Your task to perform on an android device: turn vacation reply on in the gmail app Image 0: 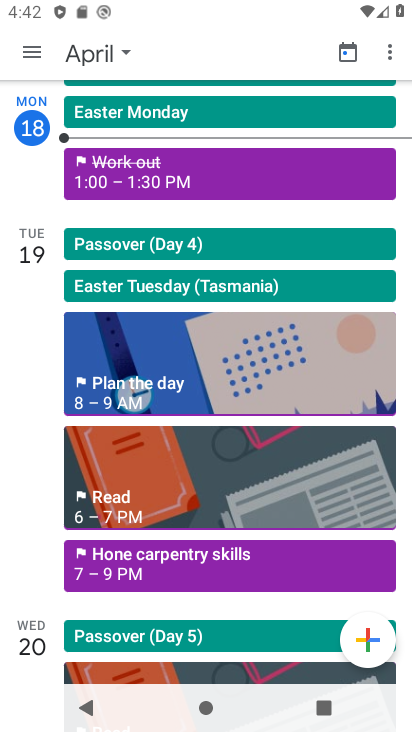
Step 0: press home button
Your task to perform on an android device: turn vacation reply on in the gmail app Image 1: 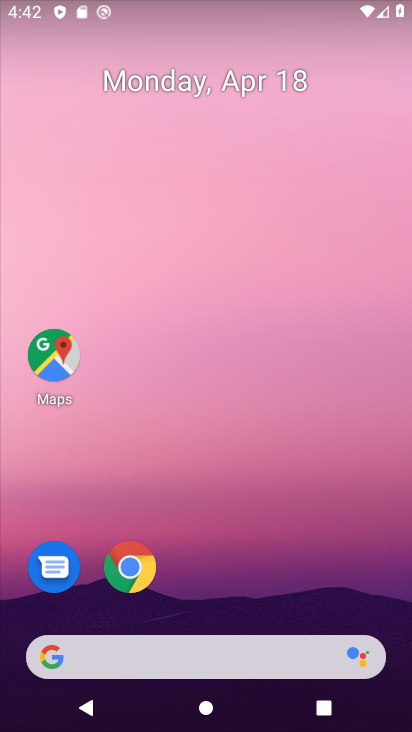
Step 1: drag from (199, 684) to (290, 172)
Your task to perform on an android device: turn vacation reply on in the gmail app Image 2: 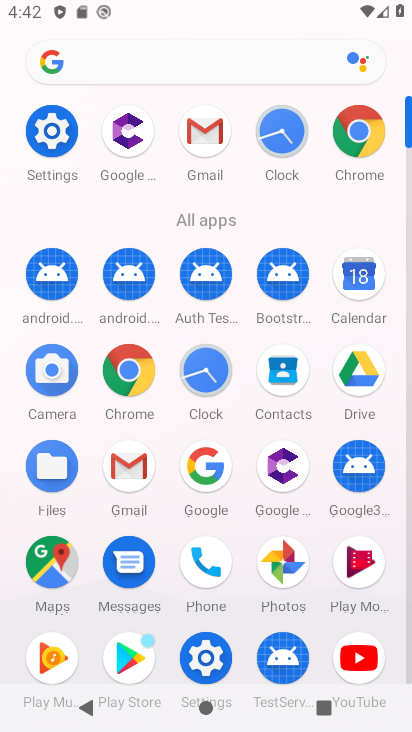
Step 2: click (205, 139)
Your task to perform on an android device: turn vacation reply on in the gmail app Image 3: 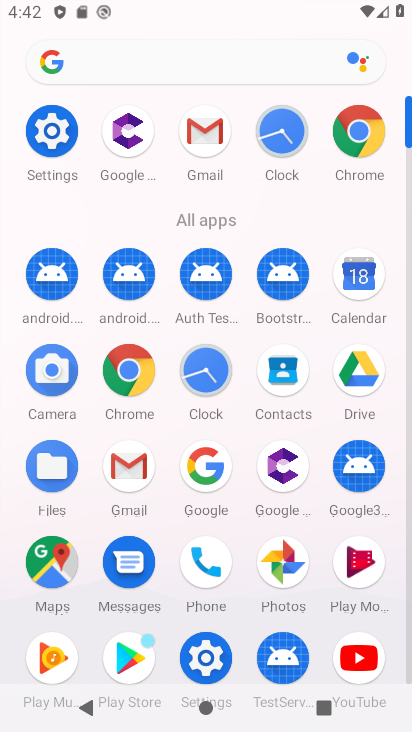
Step 3: click (205, 139)
Your task to perform on an android device: turn vacation reply on in the gmail app Image 4: 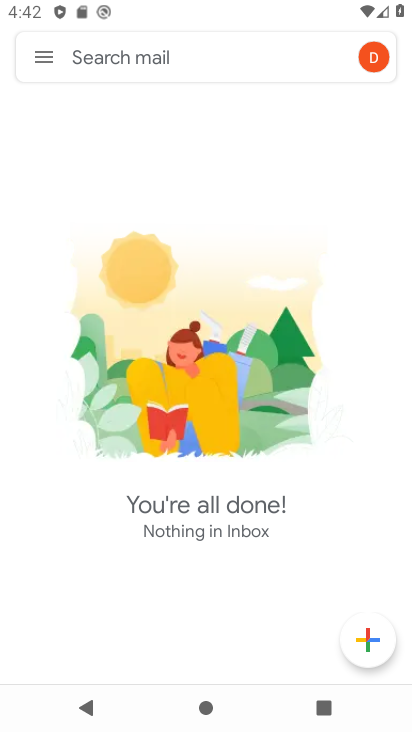
Step 4: click (39, 63)
Your task to perform on an android device: turn vacation reply on in the gmail app Image 5: 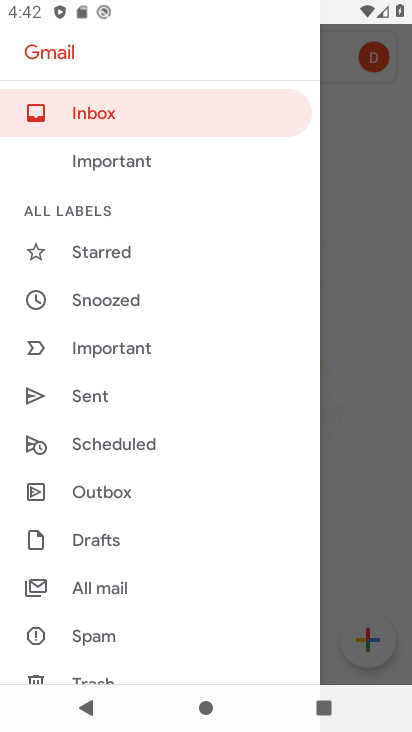
Step 5: drag from (78, 623) to (170, 215)
Your task to perform on an android device: turn vacation reply on in the gmail app Image 6: 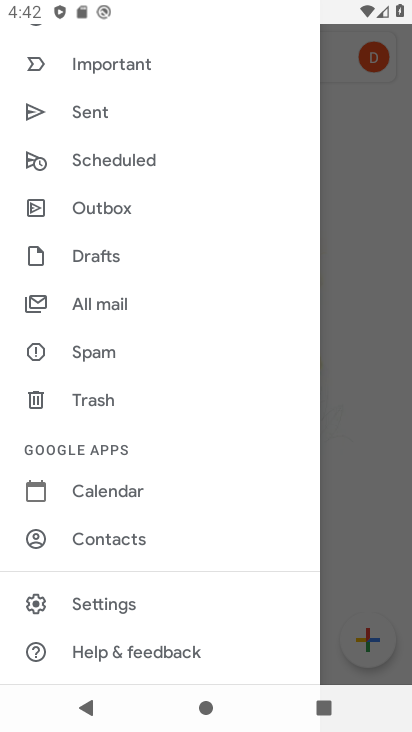
Step 6: click (109, 590)
Your task to perform on an android device: turn vacation reply on in the gmail app Image 7: 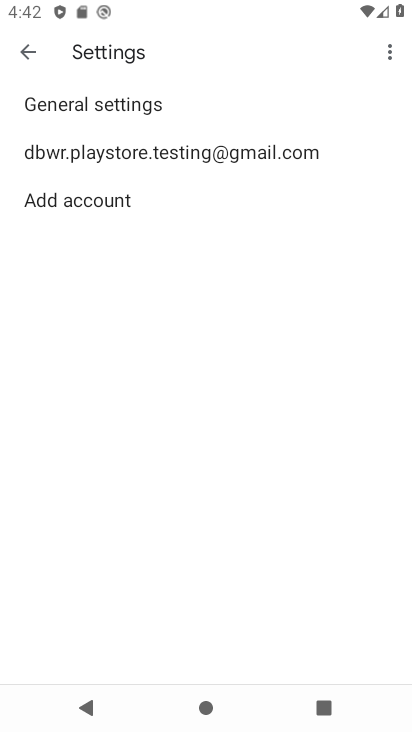
Step 7: click (124, 158)
Your task to perform on an android device: turn vacation reply on in the gmail app Image 8: 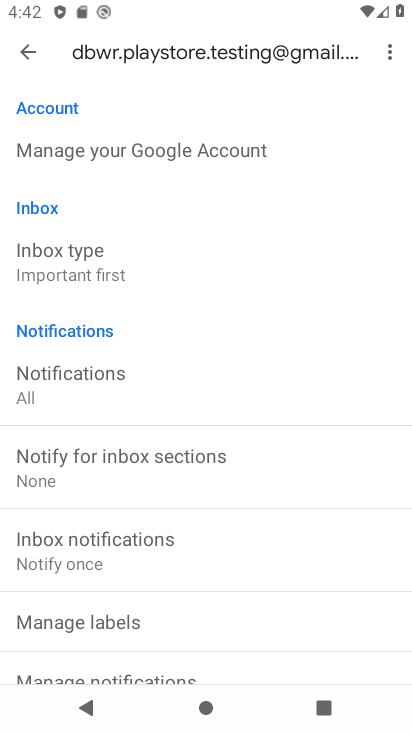
Step 8: drag from (224, 445) to (276, 161)
Your task to perform on an android device: turn vacation reply on in the gmail app Image 9: 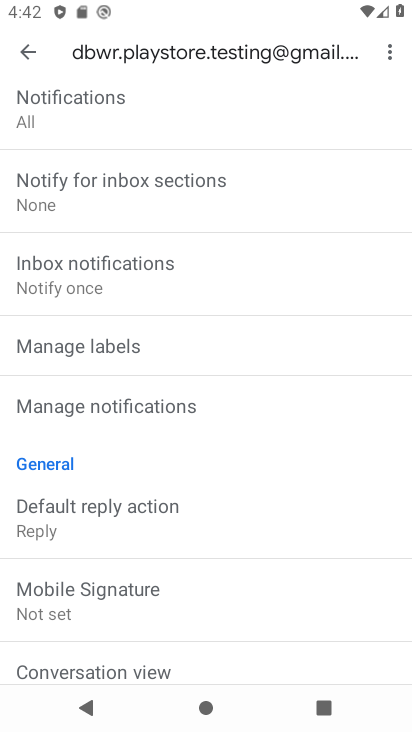
Step 9: drag from (194, 534) to (257, 365)
Your task to perform on an android device: turn vacation reply on in the gmail app Image 10: 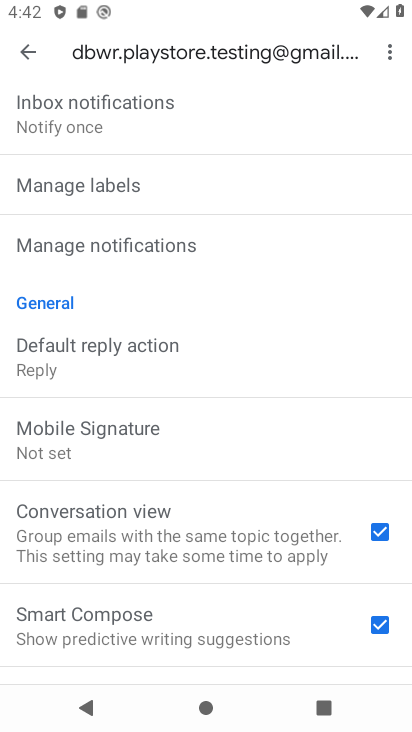
Step 10: click (220, 342)
Your task to perform on an android device: turn vacation reply on in the gmail app Image 11: 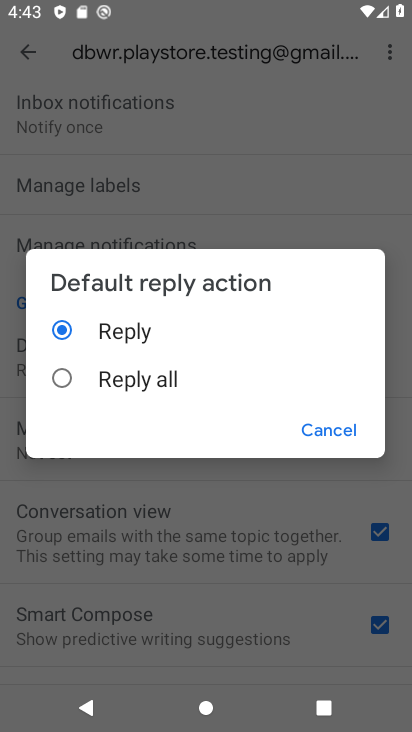
Step 11: click (175, 374)
Your task to perform on an android device: turn vacation reply on in the gmail app Image 12: 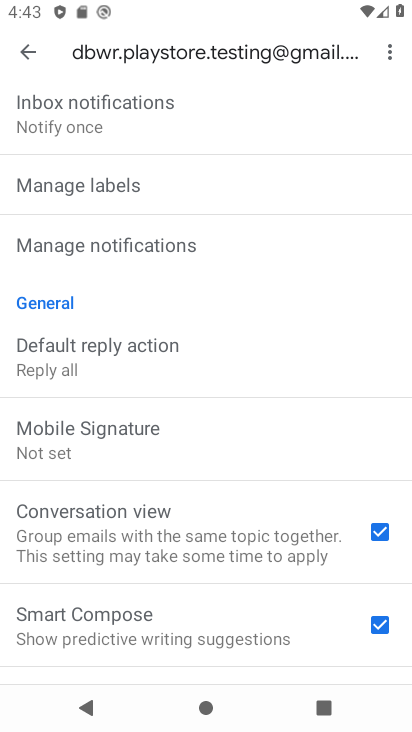
Step 12: task complete